Your task to perform on an android device: turn off location Image 0: 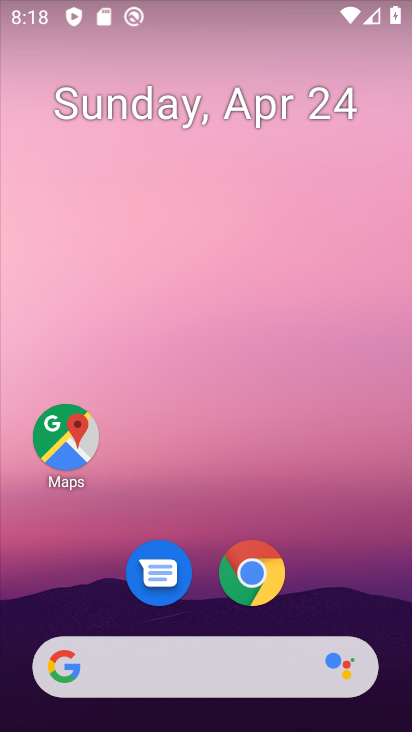
Step 0: drag from (330, 558) to (292, 91)
Your task to perform on an android device: turn off location Image 1: 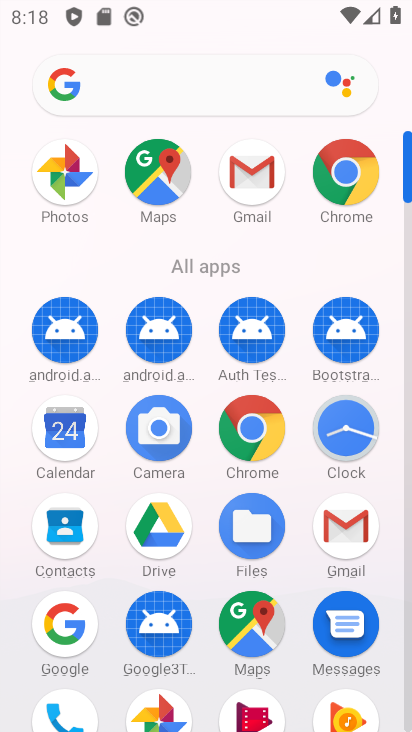
Step 1: drag from (210, 640) to (200, 222)
Your task to perform on an android device: turn off location Image 2: 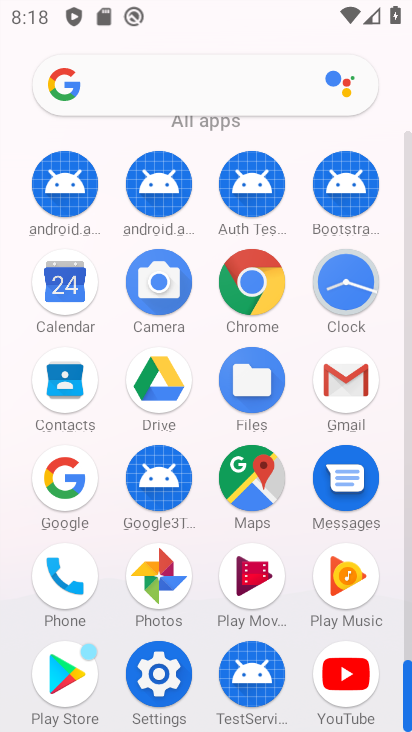
Step 2: click (171, 680)
Your task to perform on an android device: turn off location Image 3: 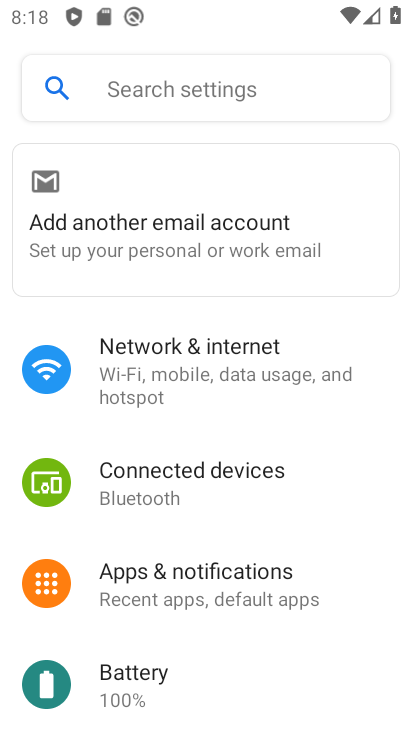
Step 3: drag from (289, 653) to (289, 285)
Your task to perform on an android device: turn off location Image 4: 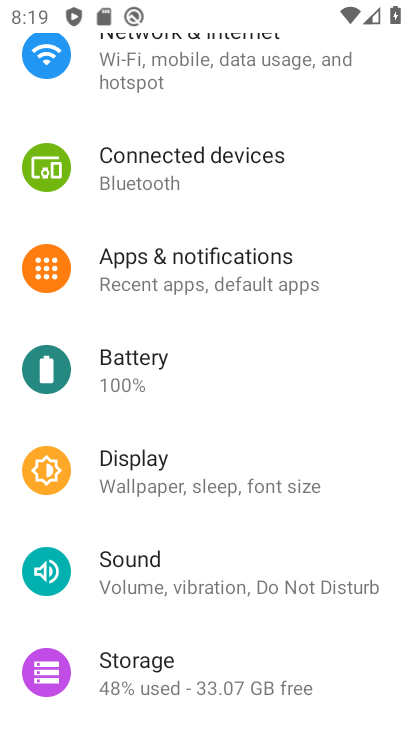
Step 4: drag from (264, 616) to (265, 320)
Your task to perform on an android device: turn off location Image 5: 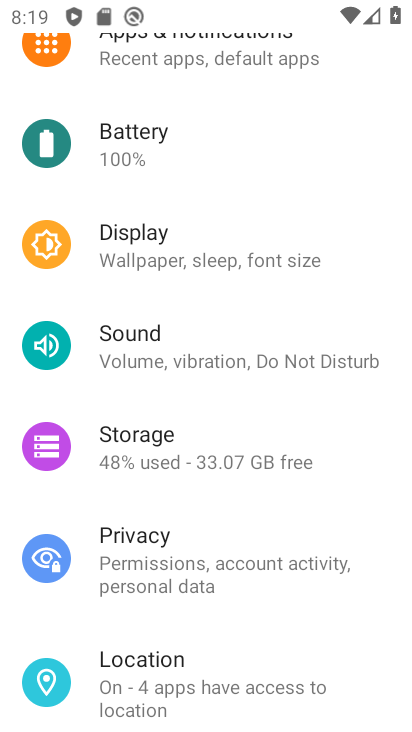
Step 5: click (179, 689)
Your task to perform on an android device: turn off location Image 6: 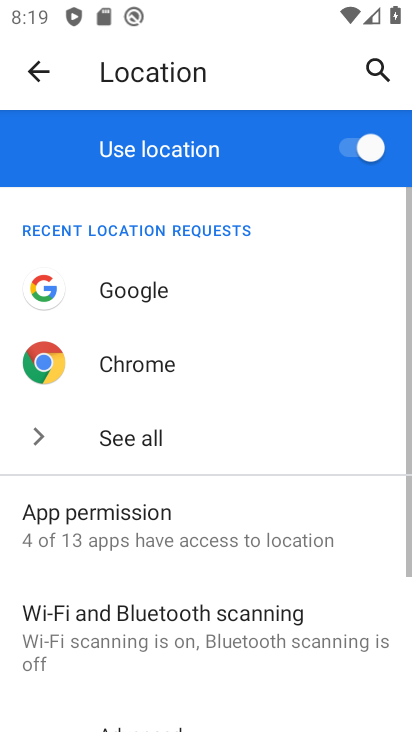
Step 6: click (358, 147)
Your task to perform on an android device: turn off location Image 7: 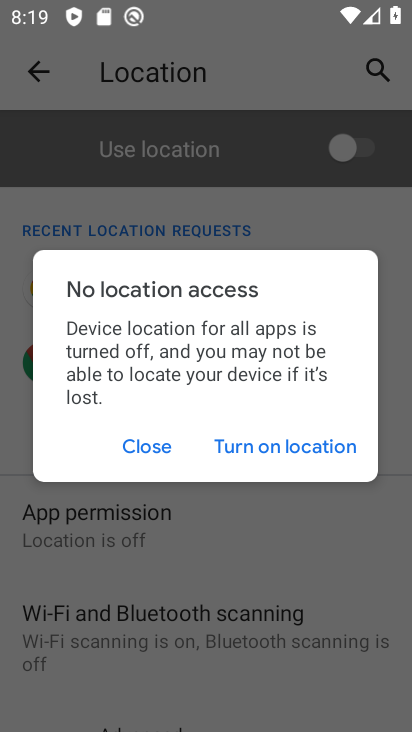
Step 7: task complete